Your task to perform on an android device: Open Google Chrome and click the shortcut for Amazon.com Image 0: 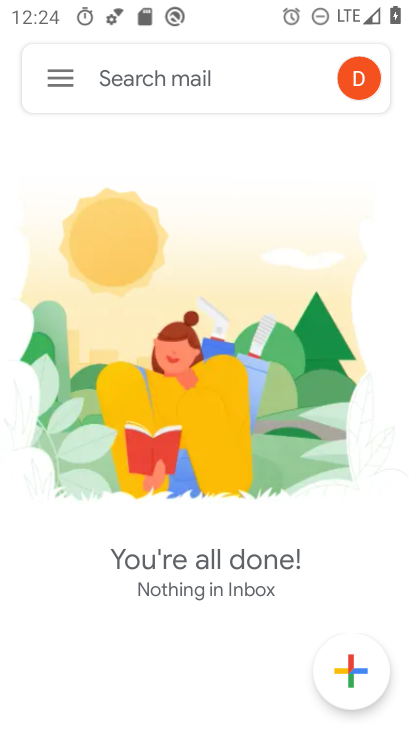
Step 0: press home button
Your task to perform on an android device: Open Google Chrome and click the shortcut for Amazon.com Image 1: 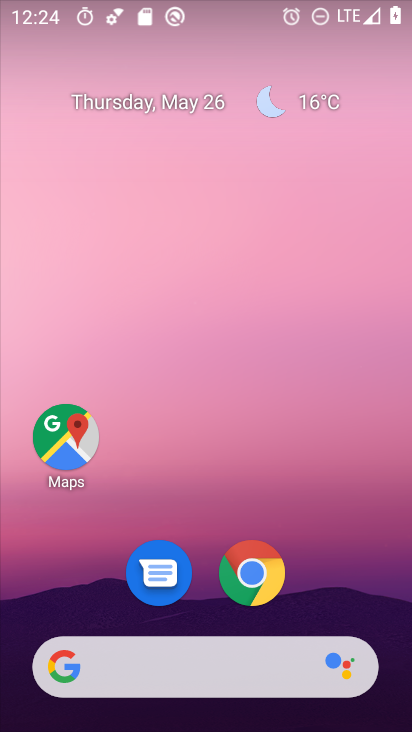
Step 1: click (262, 592)
Your task to perform on an android device: Open Google Chrome and click the shortcut for Amazon.com Image 2: 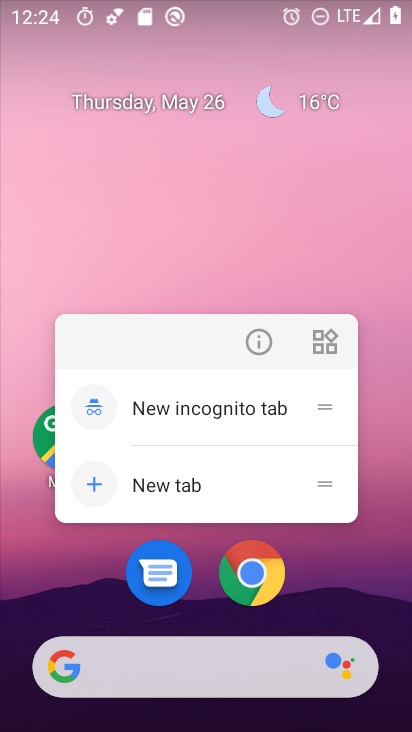
Step 2: click (253, 577)
Your task to perform on an android device: Open Google Chrome and click the shortcut for Amazon.com Image 3: 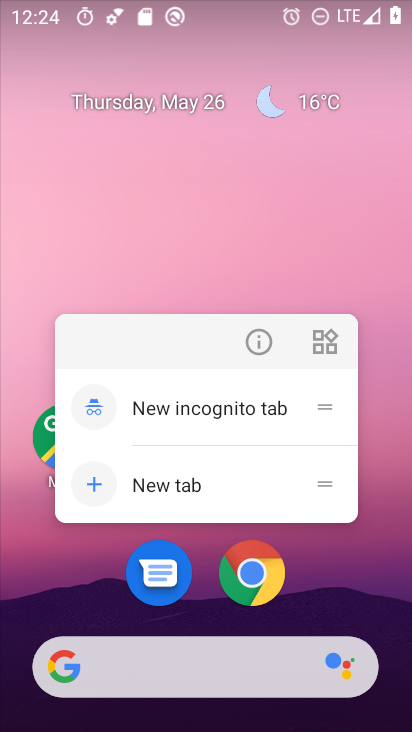
Step 3: click (253, 577)
Your task to perform on an android device: Open Google Chrome and click the shortcut for Amazon.com Image 4: 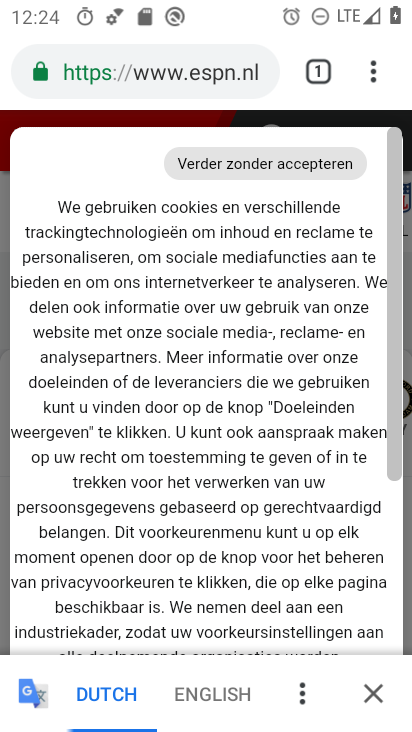
Step 4: click (373, 694)
Your task to perform on an android device: Open Google Chrome and click the shortcut for Amazon.com Image 5: 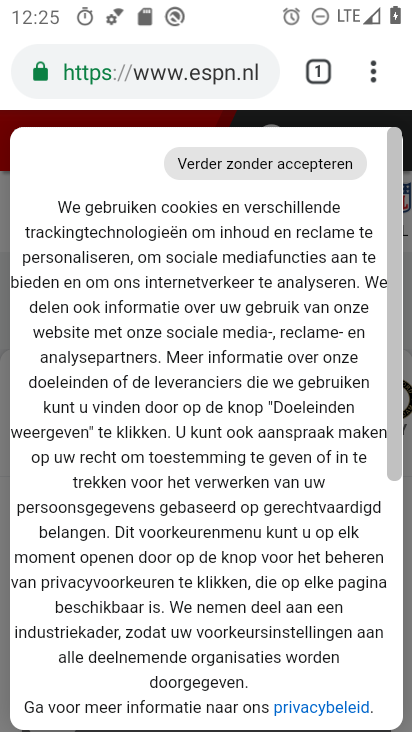
Step 5: click (376, 71)
Your task to perform on an android device: Open Google Chrome and click the shortcut for Amazon.com Image 6: 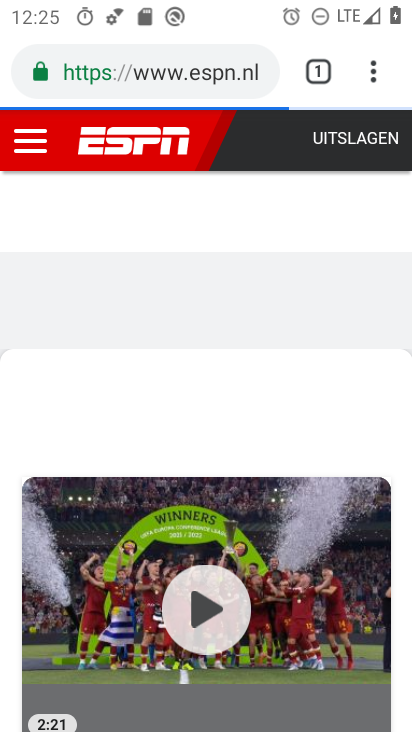
Step 6: click (372, 72)
Your task to perform on an android device: Open Google Chrome and click the shortcut for Amazon.com Image 7: 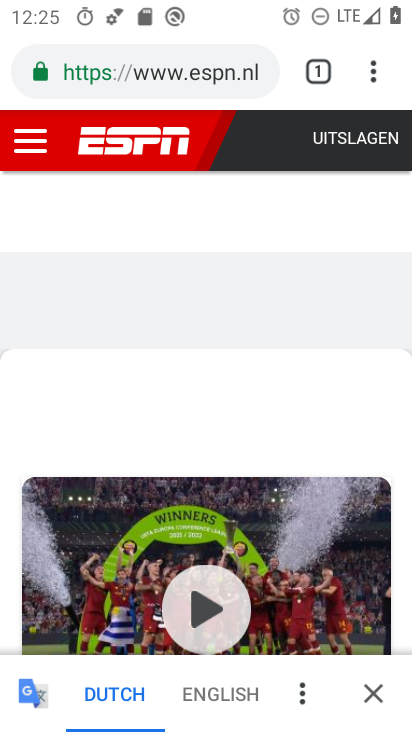
Step 7: click (372, 72)
Your task to perform on an android device: Open Google Chrome and click the shortcut for Amazon.com Image 8: 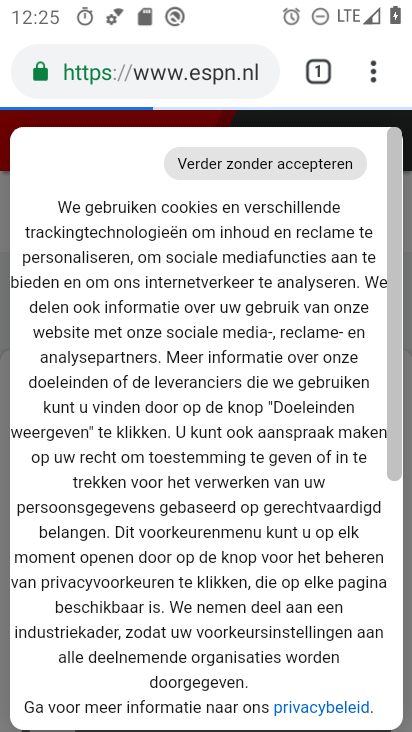
Step 8: click (372, 72)
Your task to perform on an android device: Open Google Chrome and click the shortcut for Amazon.com Image 9: 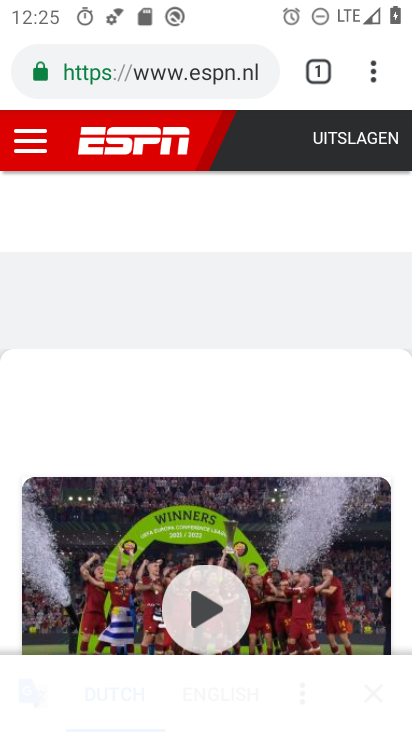
Step 9: click (372, 72)
Your task to perform on an android device: Open Google Chrome and click the shortcut for Amazon.com Image 10: 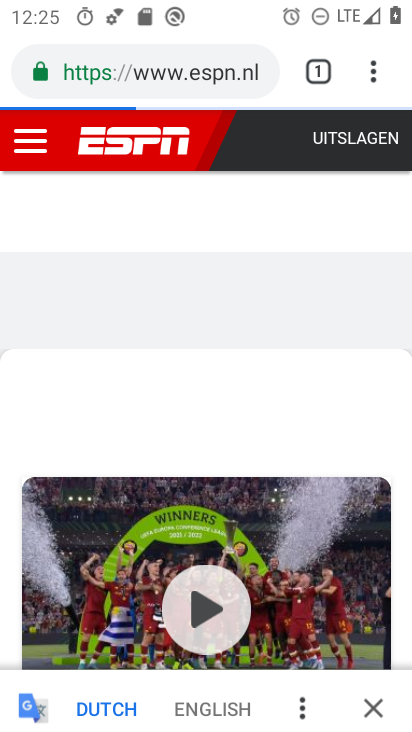
Step 10: click (372, 72)
Your task to perform on an android device: Open Google Chrome and click the shortcut for Amazon.com Image 11: 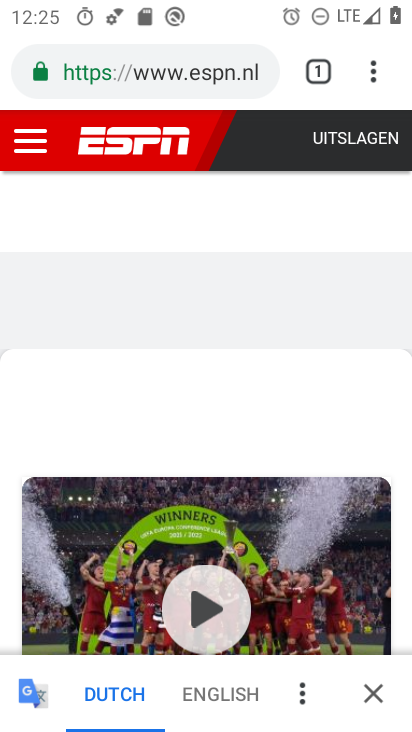
Step 11: click (372, 72)
Your task to perform on an android device: Open Google Chrome and click the shortcut for Amazon.com Image 12: 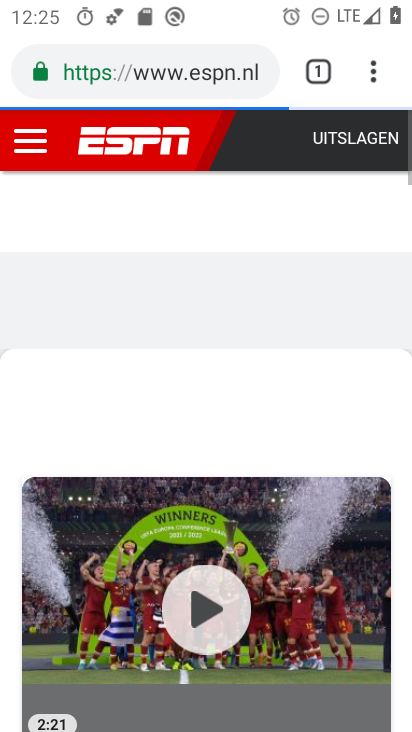
Step 12: click (372, 72)
Your task to perform on an android device: Open Google Chrome and click the shortcut for Amazon.com Image 13: 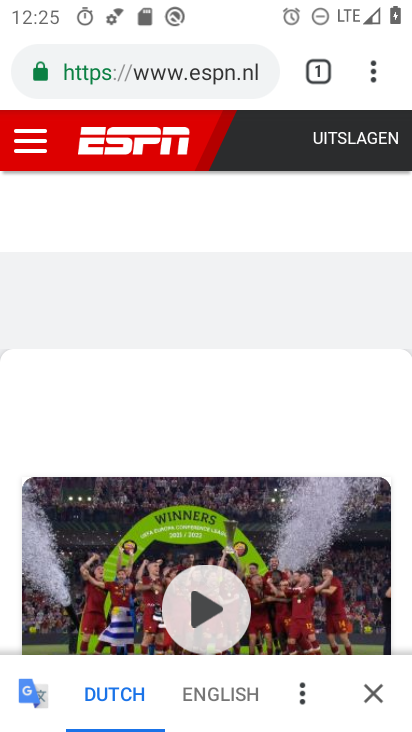
Step 13: drag from (372, 72) to (67, 144)
Your task to perform on an android device: Open Google Chrome and click the shortcut for Amazon.com Image 14: 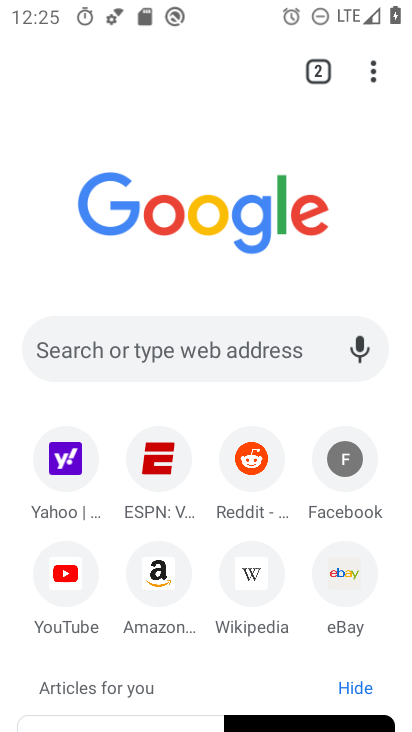
Step 14: click (159, 572)
Your task to perform on an android device: Open Google Chrome and click the shortcut for Amazon.com Image 15: 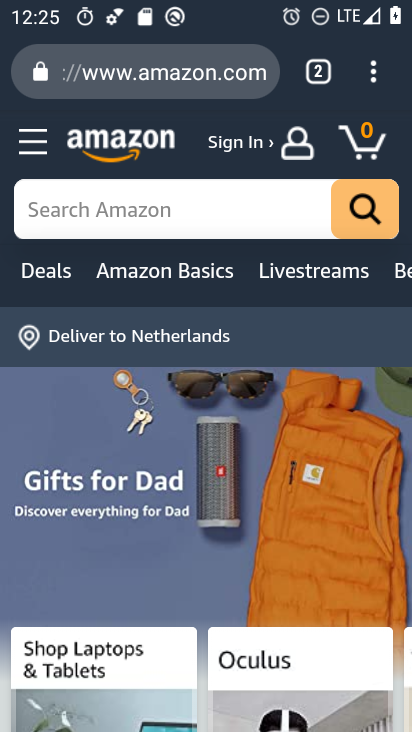
Step 15: task complete